Your task to perform on an android device: Go to internet settings Image 0: 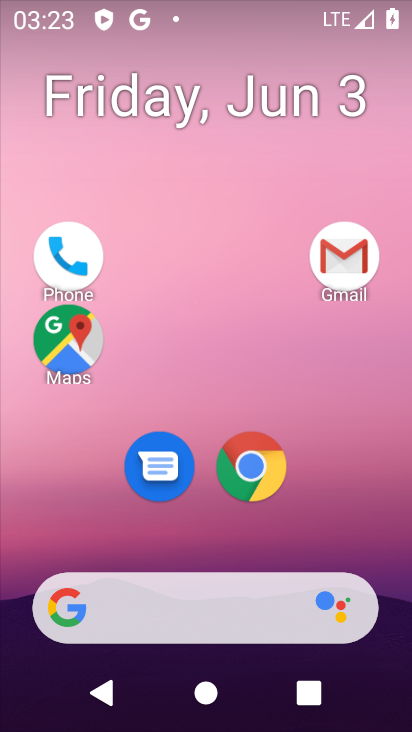
Step 0: drag from (197, 532) to (234, 153)
Your task to perform on an android device: Go to internet settings Image 1: 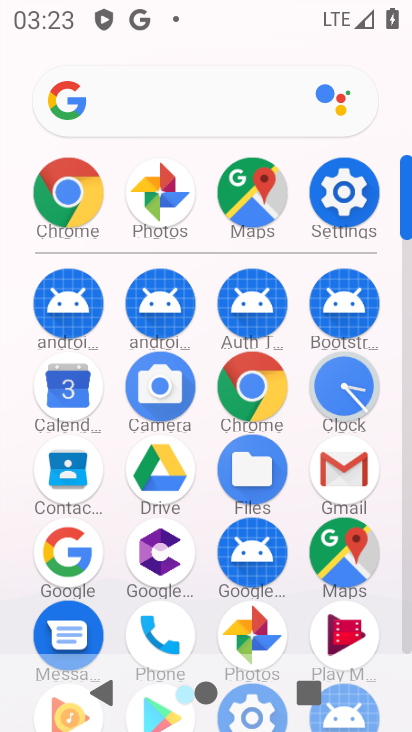
Step 1: click (332, 188)
Your task to perform on an android device: Go to internet settings Image 2: 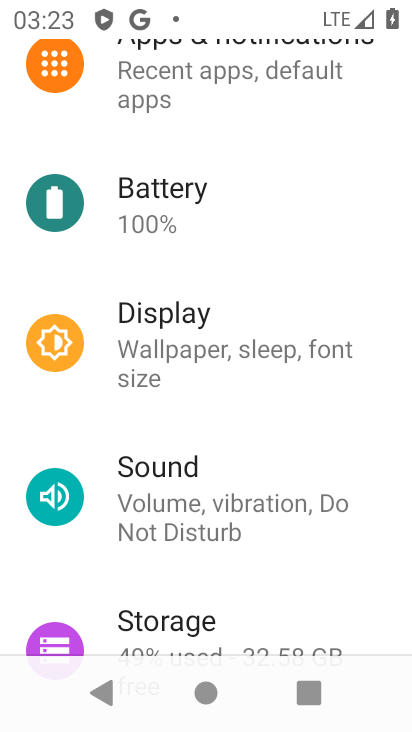
Step 2: drag from (256, 204) to (240, 470)
Your task to perform on an android device: Go to internet settings Image 3: 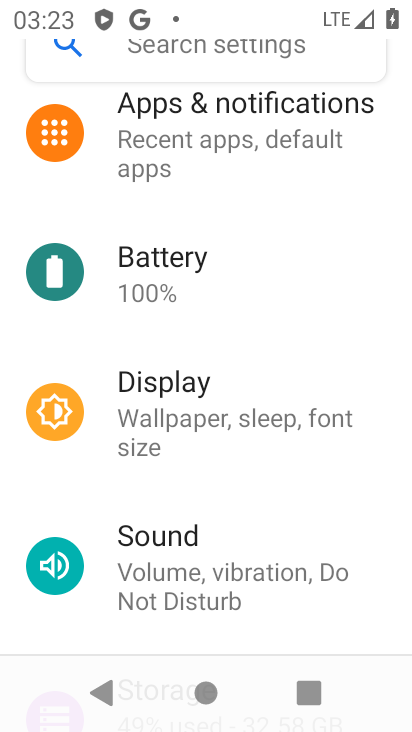
Step 3: drag from (239, 280) to (204, 473)
Your task to perform on an android device: Go to internet settings Image 4: 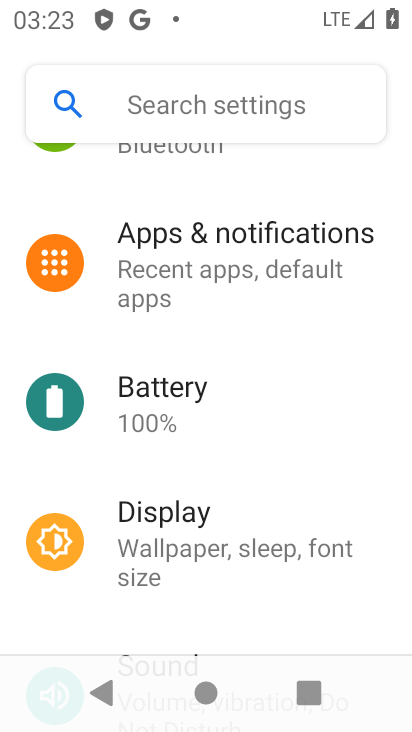
Step 4: drag from (228, 239) to (255, 491)
Your task to perform on an android device: Go to internet settings Image 5: 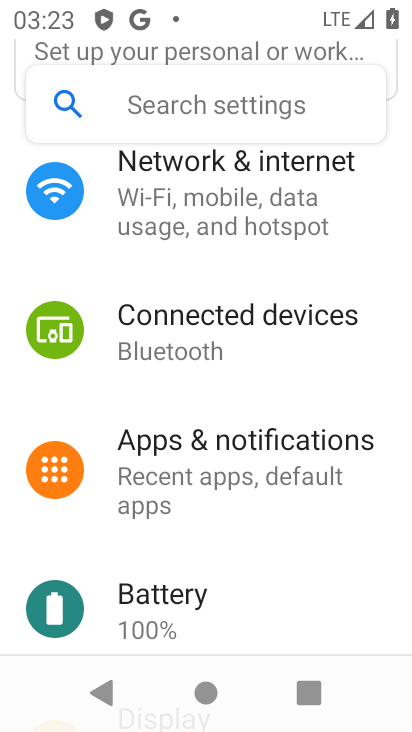
Step 5: drag from (225, 319) to (210, 568)
Your task to perform on an android device: Go to internet settings Image 6: 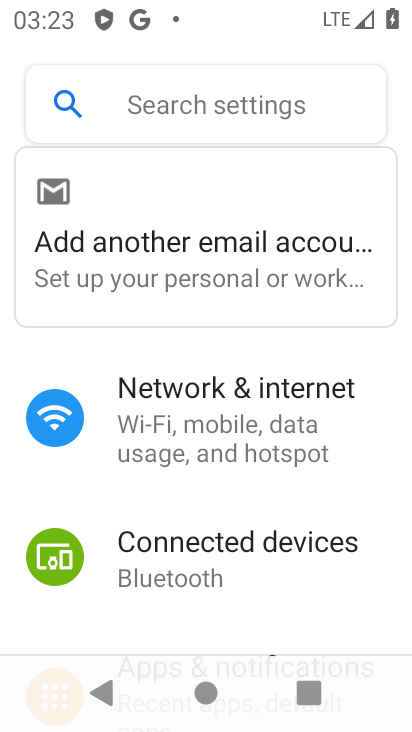
Step 6: click (200, 407)
Your task to perform on an android device: Go to internet settings Image 7: 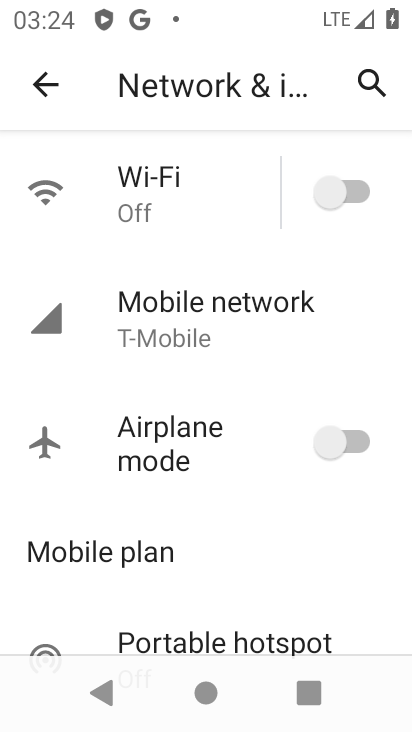
Step 7: task complete